Your task to perform on an android device: Open Yahoo.com Image 0: 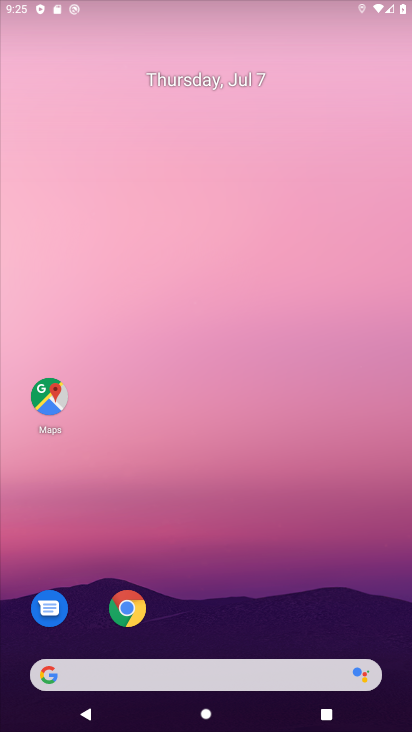
Step 0: press home button
Your task to perform on an android device: Open Yahoo.com Image 1: 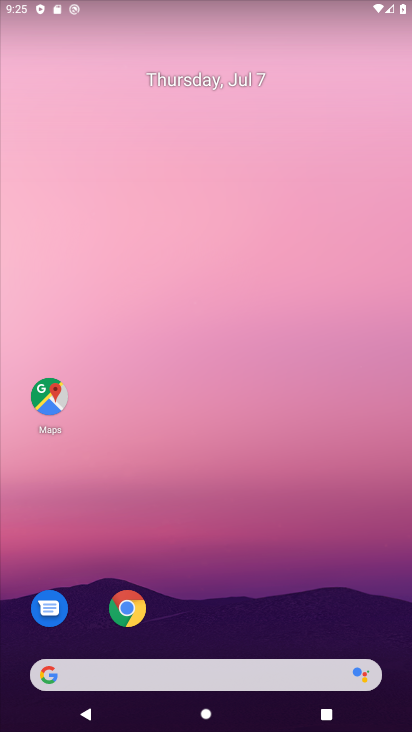
Step 1: click (127, 599)
Your task to perform on an android device: Open Yahoo.com Image 2: 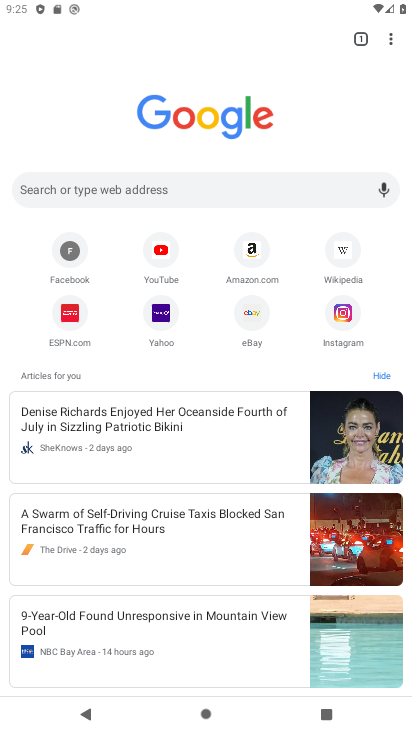
Step 2: click (164, 317)
Your task to perform on an android device: Open Yahoo.com Image 3: 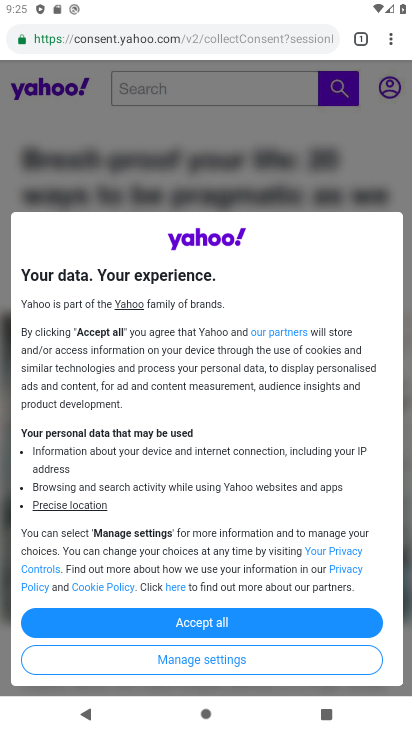
Step 3: click (235, 617)
Your task to perform on an android device: Open Yahoo.com Image 4: 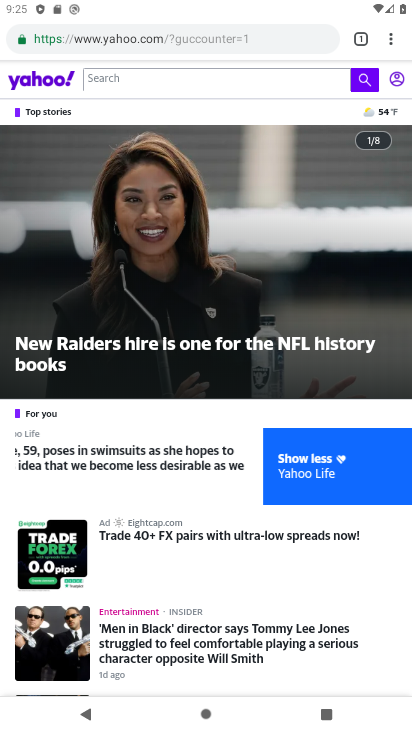
Step 4: task complete